Your task to perform on an android device: Open calendar and show me the second week of next month Image 0: 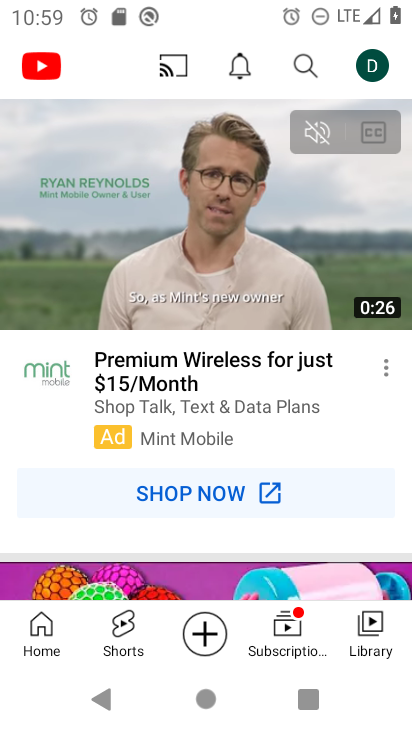
Step 0: press home button
Your task to perform on an android device: Open calendar and show me the second week of next month Image 1: 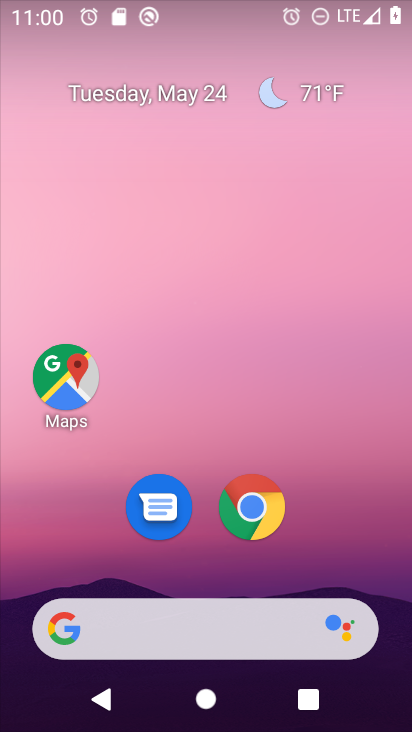
Step 1: click (235, 697)
Your task to perform on an android device: Open calendar and show me the second week of next month Image 2: 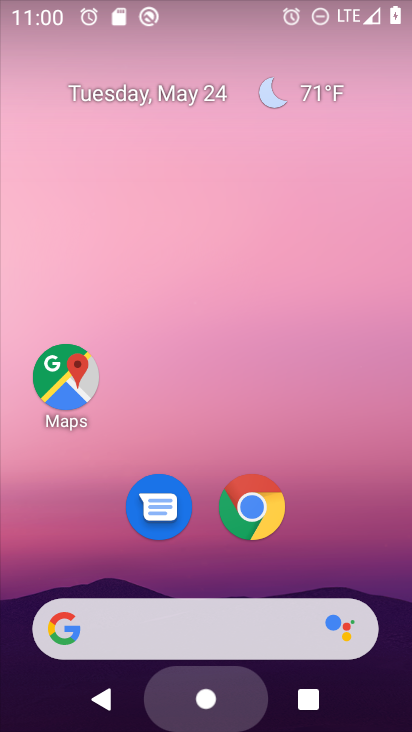
Step 2: click (215, 117)
Your task to perform on an android device: Open calendar and show me the second week of next month Image 3: 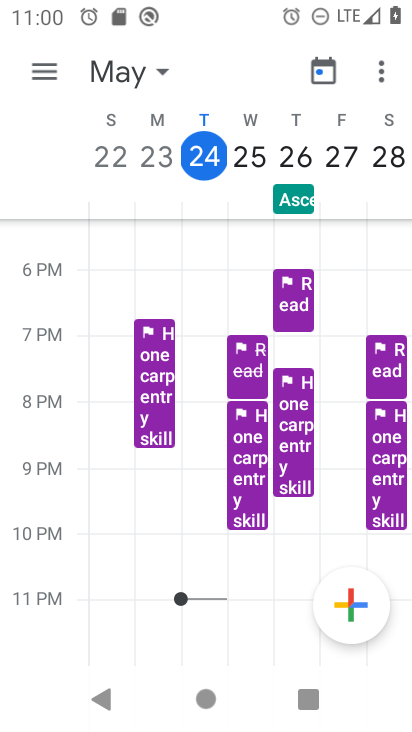
Step 3: click (156, 69)
Your task to perform on an android device: Open calendar and show me the second week of next month Image 4: 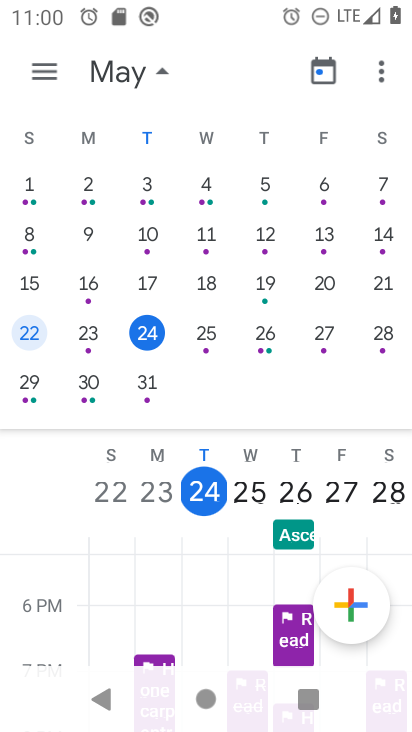
Step 4: drag from (375, 232) to (7, 236)
Your task to perform on an android device: Open calendar and show me the second week of next month Image 5: 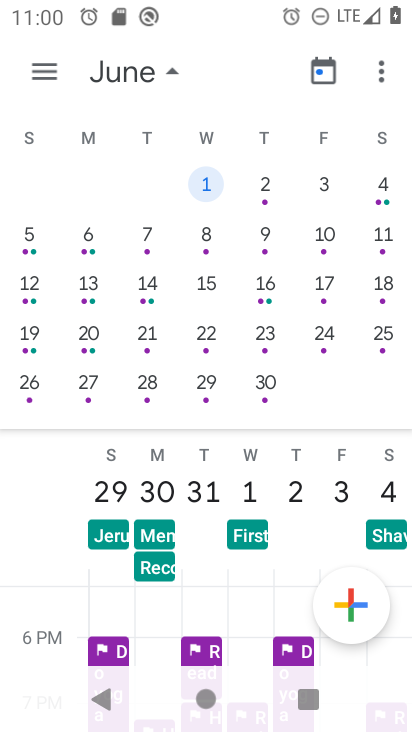
Step 5: click (85, 279)
Your task to perform on an android device: Open calendar and show me the second week of next month Image 6: 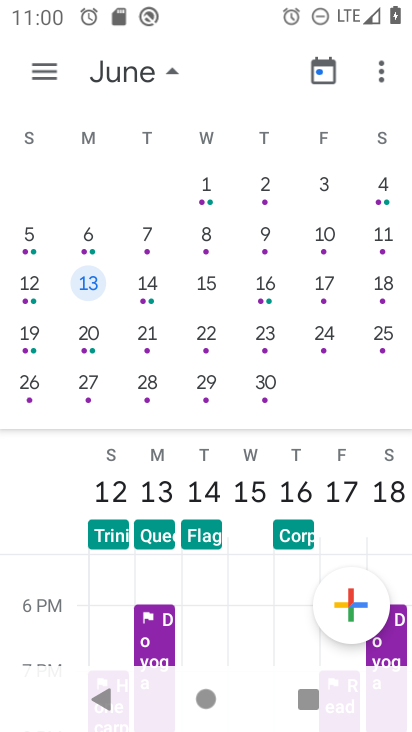
Step 6: click (42, 73)
Your task to perform on an android device: Open calendar and show me the second week of next month Image 7: 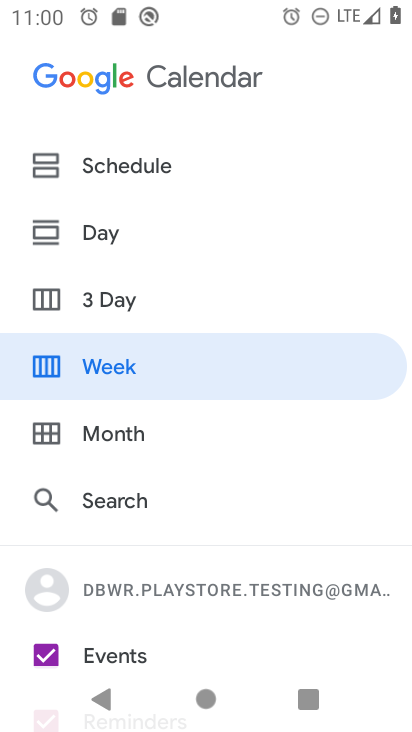
Step 7: click (98, 364)
Your task to perform on an android device: Open calendar and show me the second week of next month Image 8: 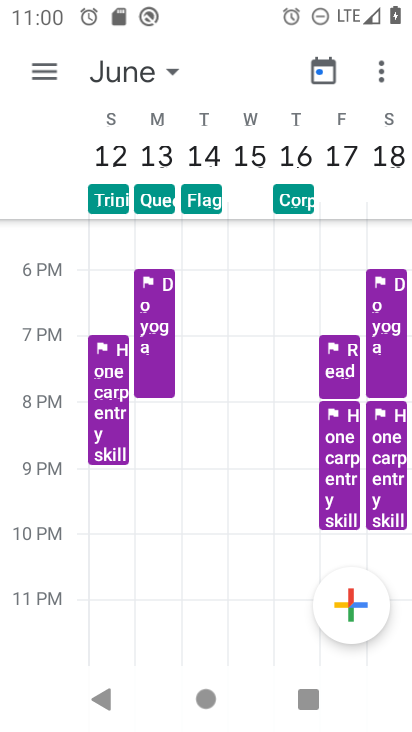
Step 8: task complete